Your task to perform on an android device: Open Reddit.com Image 0: 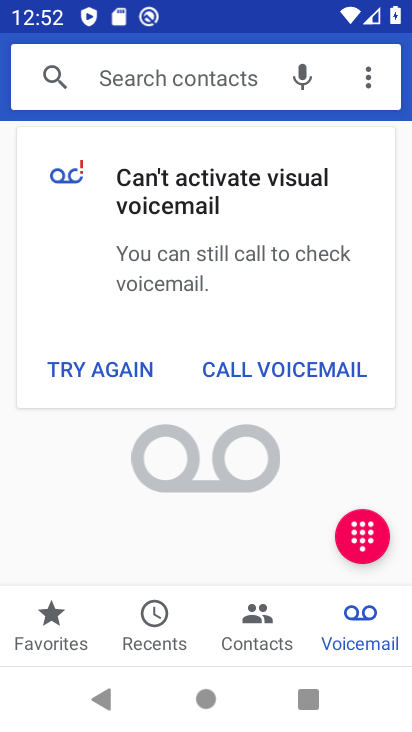
Step 0: press home button
Your task to perform on an android device: Open Reddit.com Image 1: 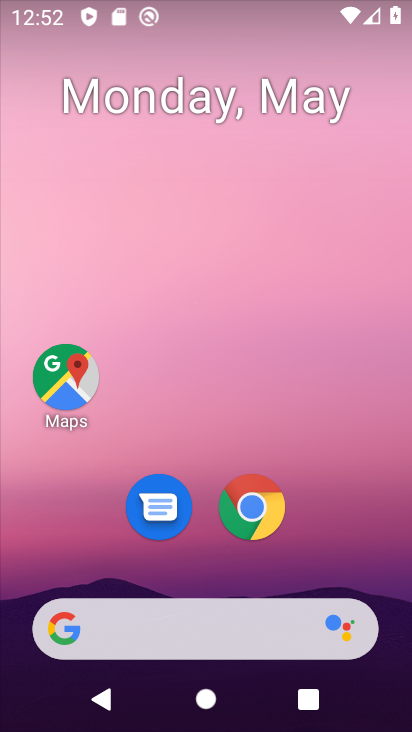
Step 1: click (249, 505)
Your task to perform on an android device: Open Reddit.com Image 2: 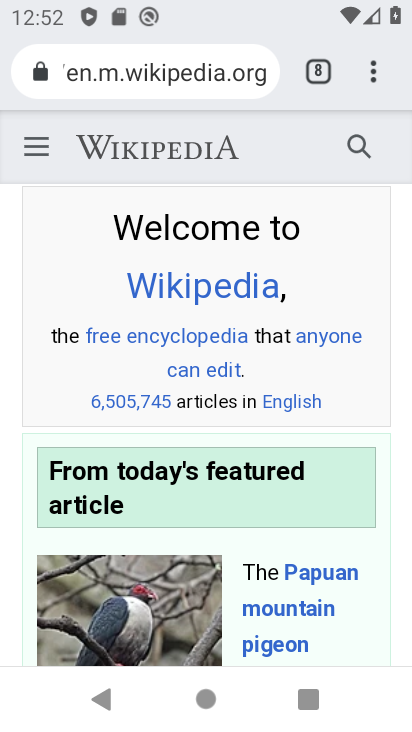
Step 2: press home button
Your task to perform on an android device: Open Reddit.com Image 3: 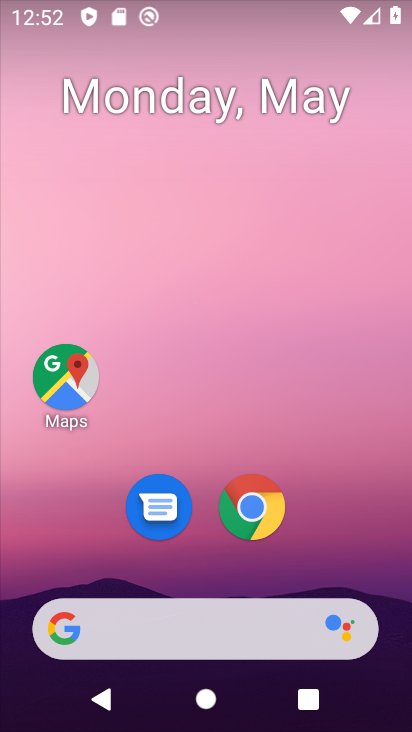
Step 3: click (250, 508)
Your task to perform on an android device: Open Reddit.com Image 4: 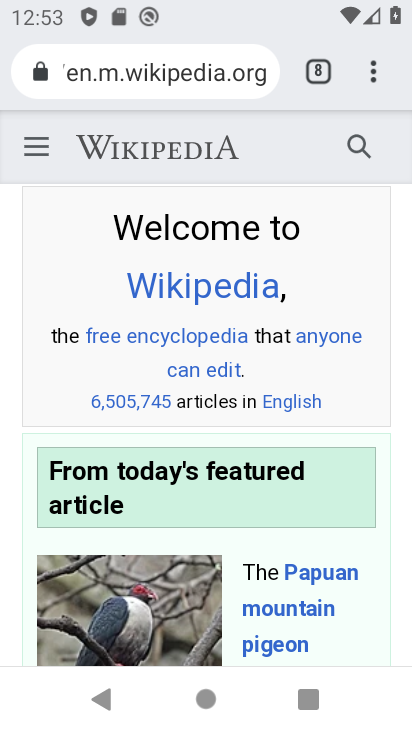
Step 4: click (372, 85)
Your task to perform on an android device: Open Reddit.com Image 5: 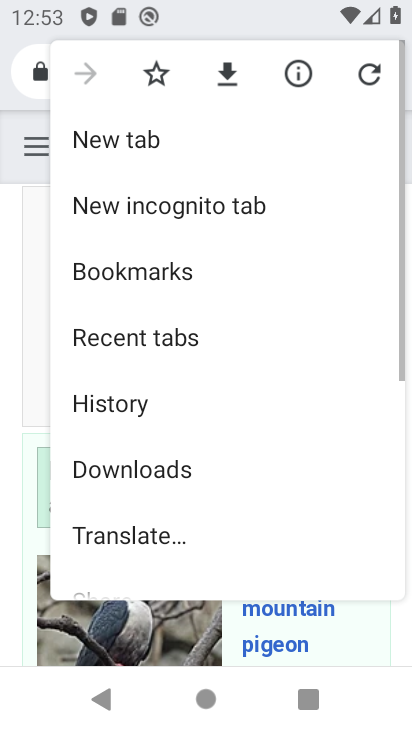
Step 5: click (112, 144)
Your task to perform on an android device: Open Reddit.com Image 6: 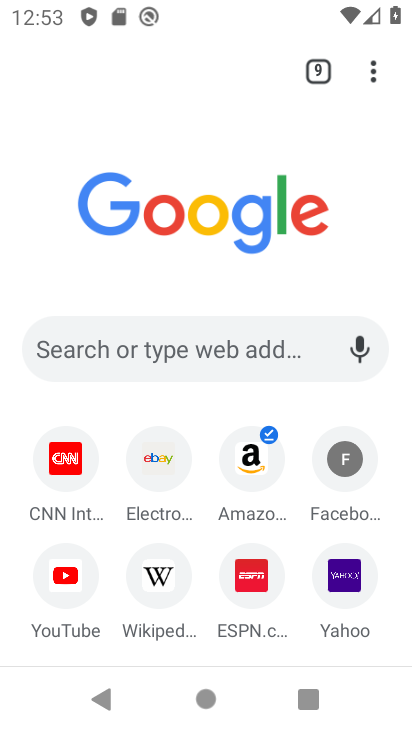
Step 6: click (217, 350)
Your task to perform on an android device: Open Reddit.com Image 7: 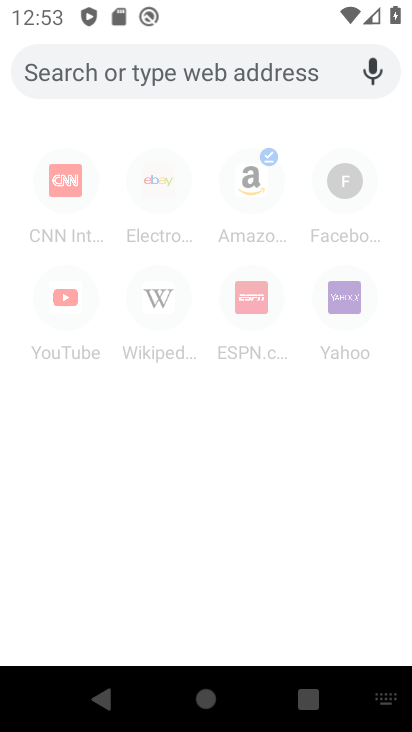
Step 7: type "Reddit.com"
Your task to perform on an android device: Open Reddit.com Image 8: 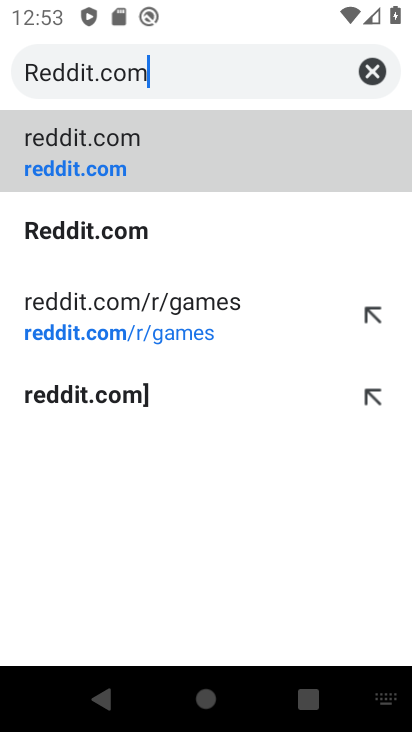
Step 8: click (92, 146)
Your task to perform on an android device: Open Reddit.com Image 9: 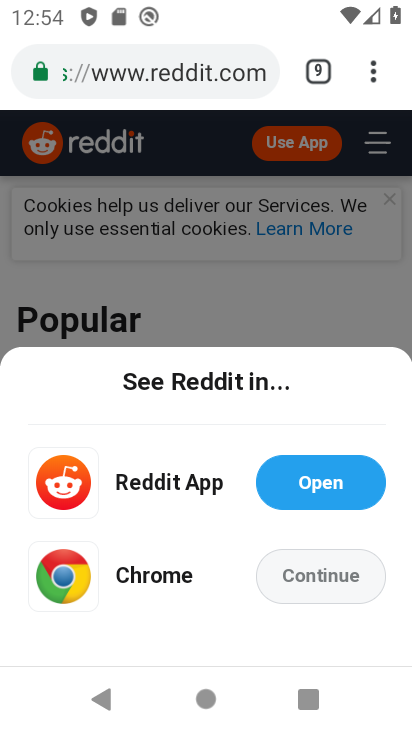
Step 9: task complete